Your task to perform on an android device: toggle airplane mode Image 0: 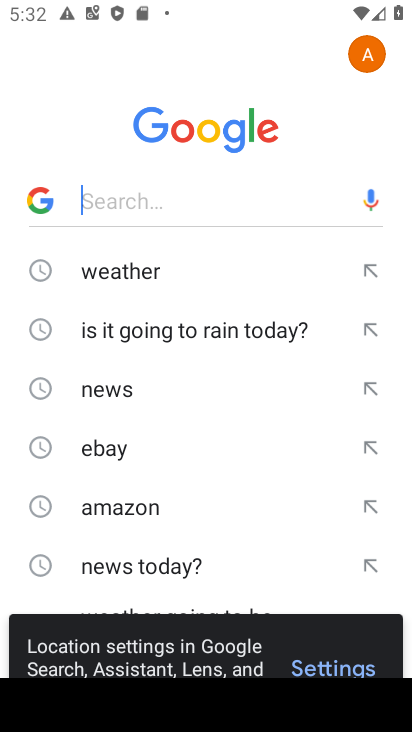
Step 0: press back button
Your task to perform on an android device: toggle airplane mode Image 1: 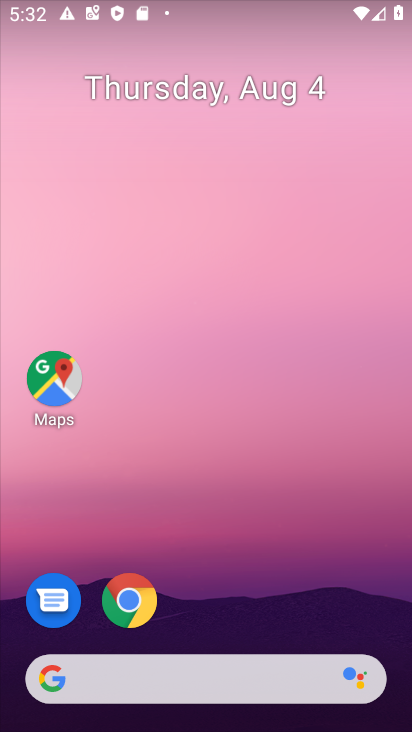
Step 1: drag from (363, 28) to (265, 661)
Your task to perform on an android device: toggle airplane mode Image 2: 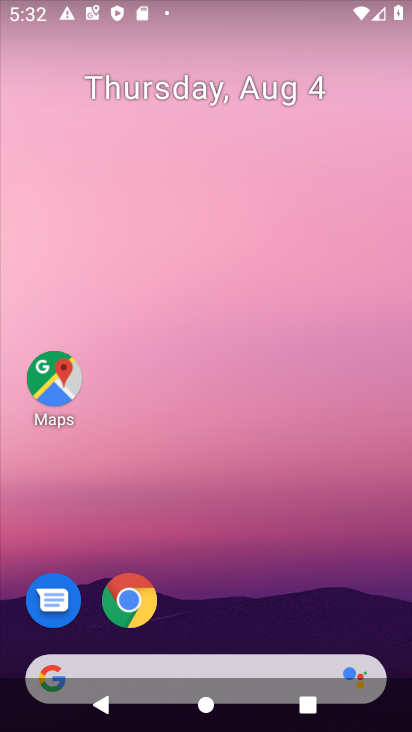
Step 2: drag from (372, 10) to (270, 657)
Your task to perform on an android device: toggle airplane mode Image 3: 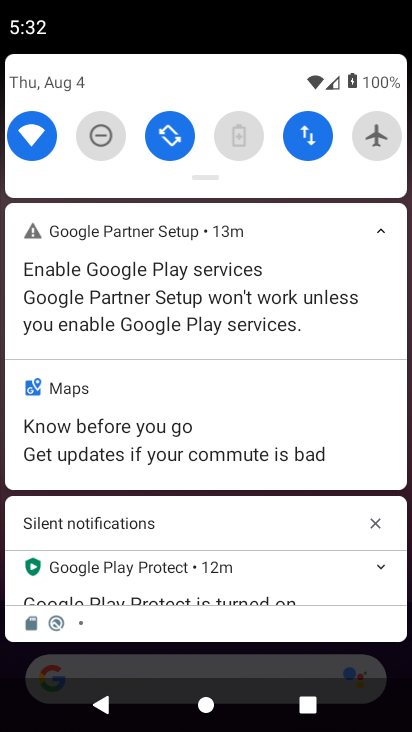
Step 3: click (367, 141)
Your task to perform on an android device: toggle airplane mode Image 4: 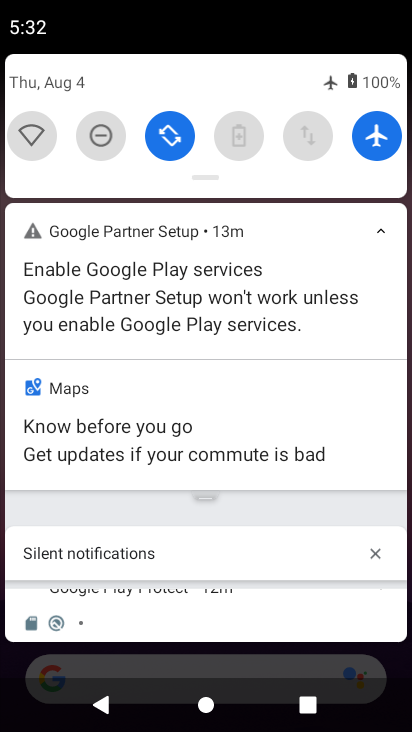
Step 4: task complete